Your task to perform on an android device: What is the recent news? Image 0: 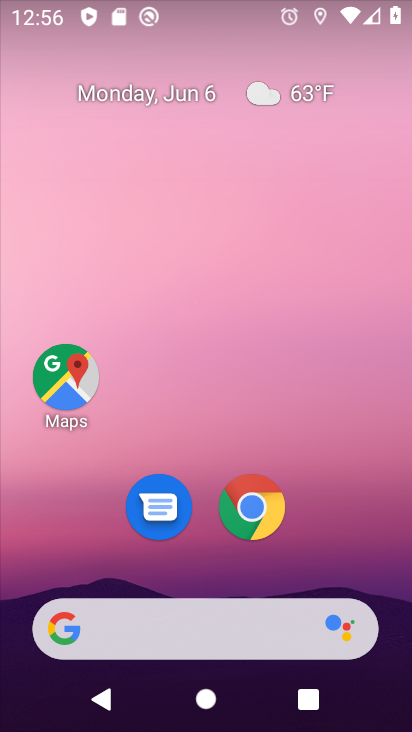
Step 0: click (171, 633)
Your task to perform on an android device: What is the recent news? Image 1: 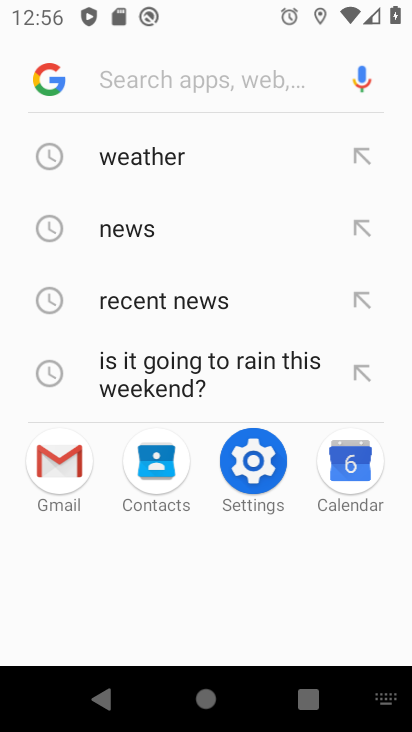
Step 1: click (139, 301)
Your task to perform on an android device: What is the recent news? Image 2: 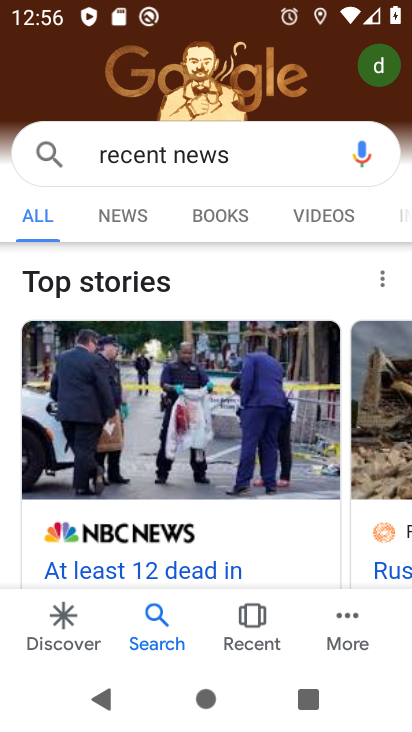
Step 2: click (108, 204)
Your task to perform on an android device: What is the recent news? Image 3: 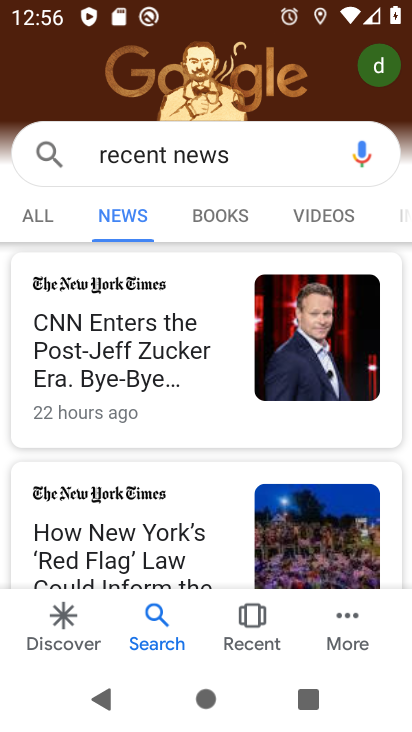
Step 3: drag from (184, 546) to (192, 213)
Your task to perform on an android device: What is the recent news? Image 4: 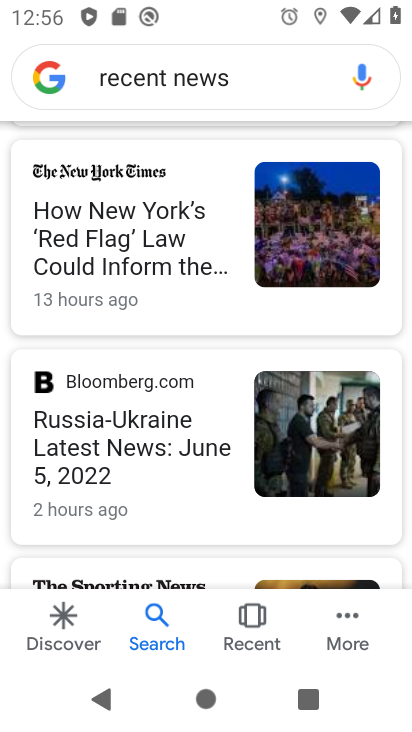
Step 4: drag from (177, 428) to (173, 138)
Your task to perform on an android device: What is the recent news? Image 5: 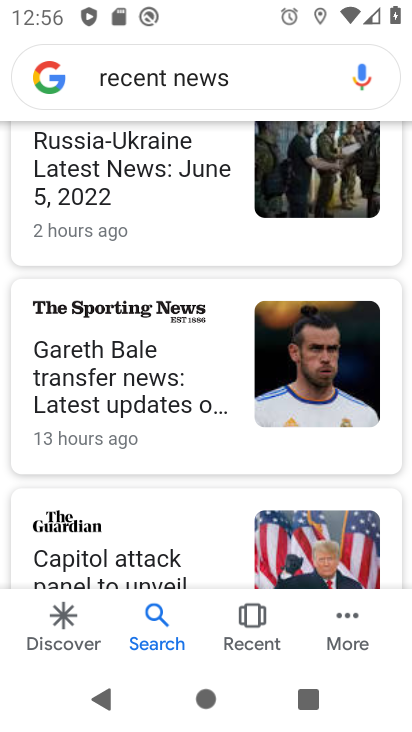
Step 5: click (168, 202)
Your task to perform on an android device: What is the recent news? Image 6: 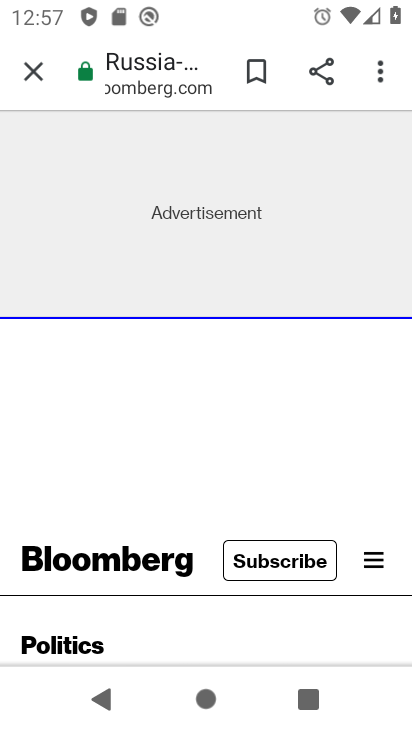
Step 6: drag from (223, 413) to (232, 112)
Your task to perform on an android device: What is the recent news? Image 7: 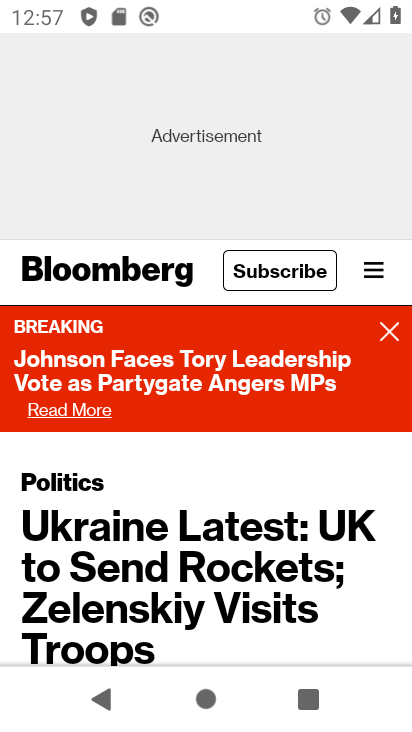
Step 7: drag from (182, 569) to (168, 177)
Your task to perform on an android device: What is the recent news? Image 8: 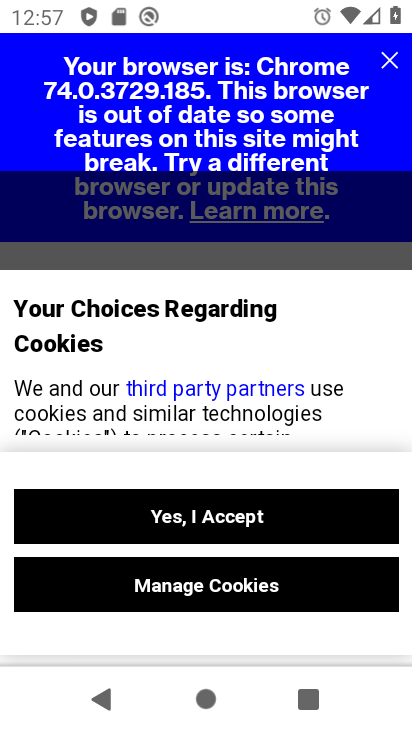
Step 8: click (393, 58)
Your task to perform on an android device: What is the recent news? Image 9: 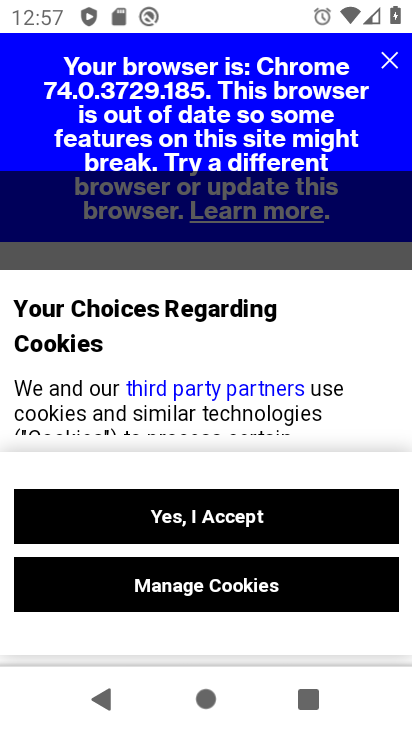
Step 9: click (290, 510)
Your task to perform on an android device: What is the recent news? Image 10: 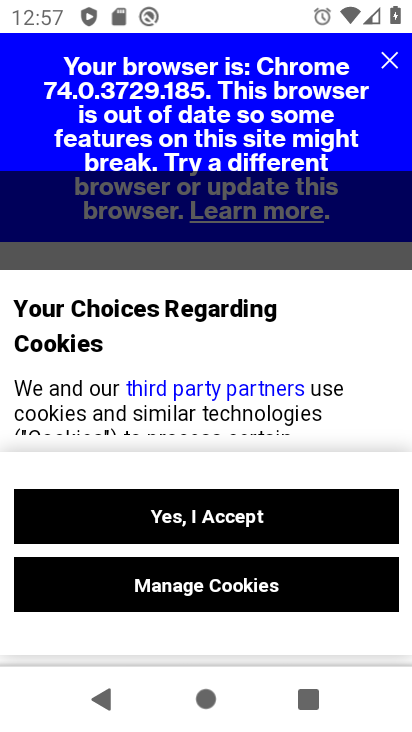
Step 10: click (290, 505)
Your task to perform on an android device: What is the recent news? Image 11: 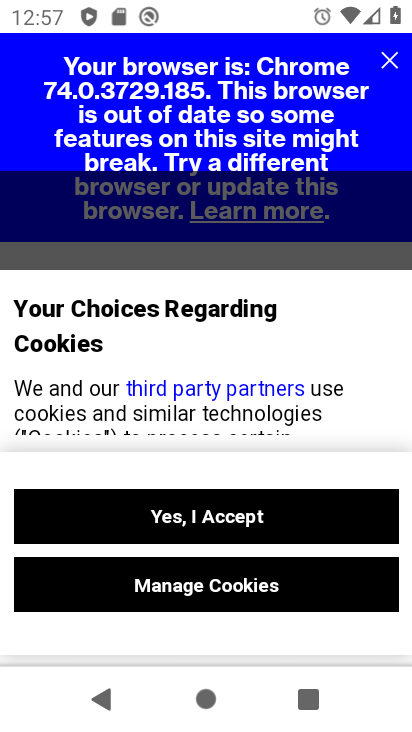
Step 11: click (391, 52)
Your task to perform on an android device: What is the recent news? Image 12: 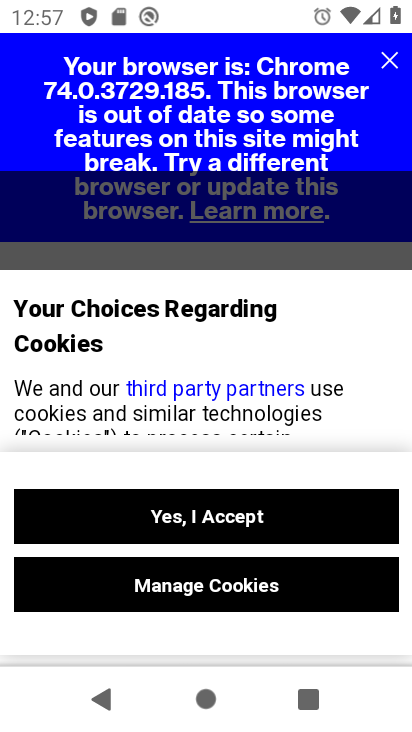
Step 12: drag from (243, 506) to (250, 152)
Your task to perform on an android device: What is the recent news? Image 13: 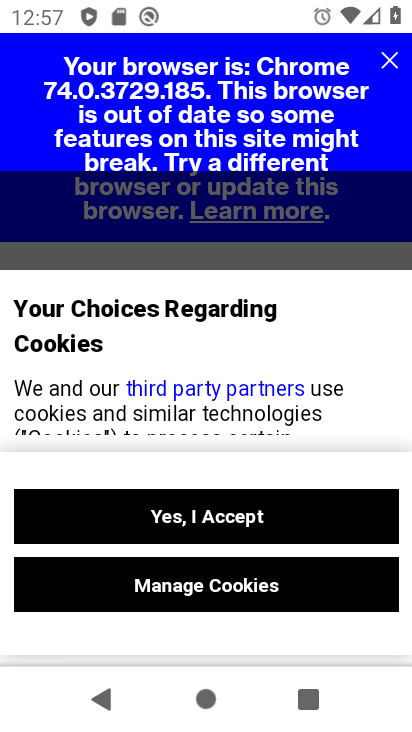
Step 13: drag from (240, 542) to (252, 134)
Your task to perform on an android device: What is the recent news? Image 14: 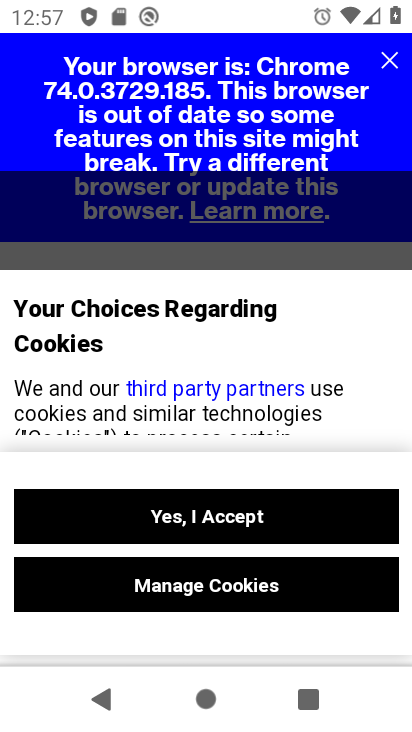
Step 14: drag from (247, 116) to (195, 564)
Your task to perform on an android device: What is the recent news? Image 15: 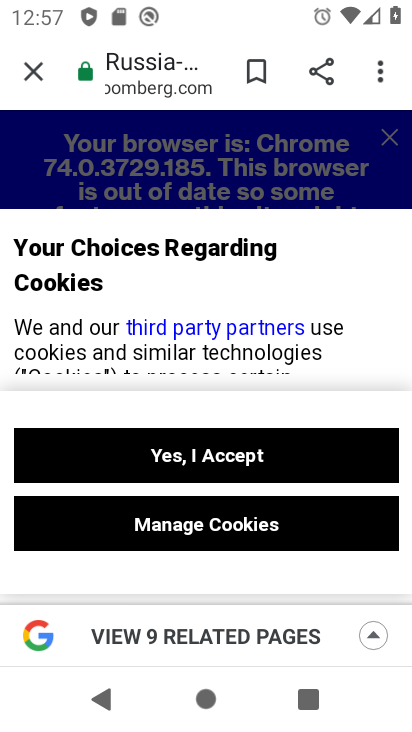
Step 15: click (311, 446)
Your task to perform on an android device: What is the recent news? Image 16: 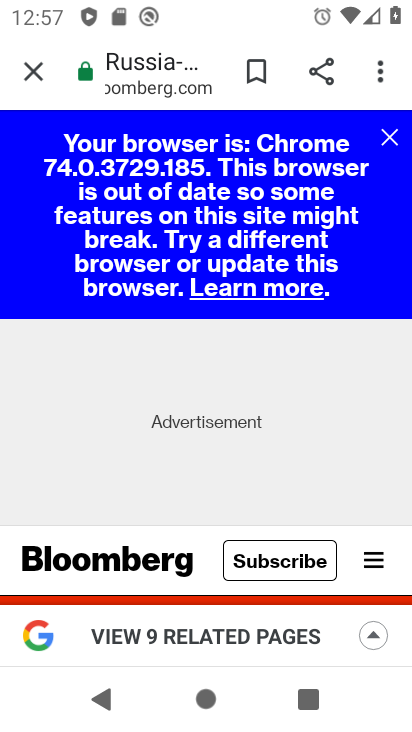
Step 16: task complete